Your task to perform on an android device: toggle translation in the chrome app Image 0: 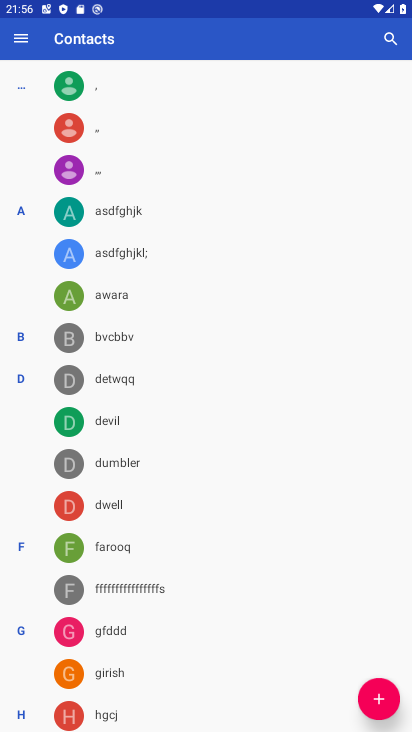
Step 0: press home button
Your task to perform on an android device: toggle translation in the chrome app Image 1: 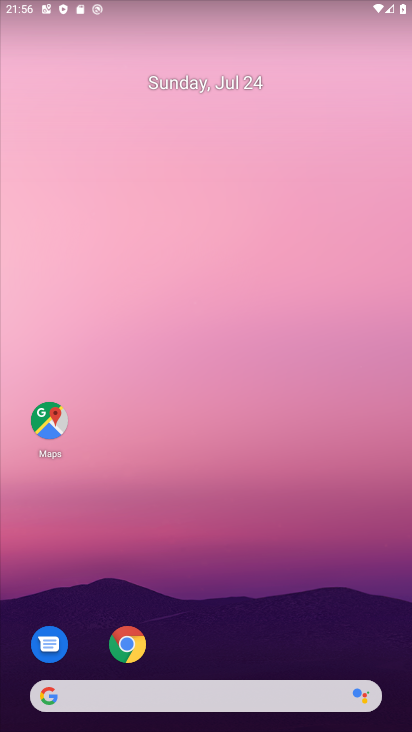
Step 1: click (129, 648)
Your task to perform on an android device: toggle translation in the chrome app Image 2: 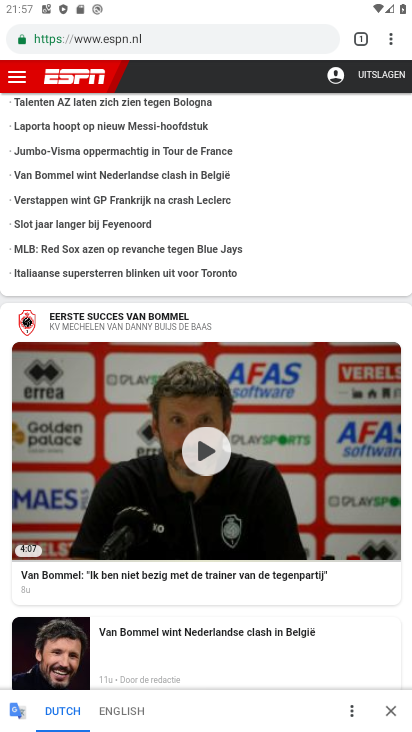
Step 2: click (390, 41)
Your task to perform on an android device: toggle translation in the chrome app Image 3: 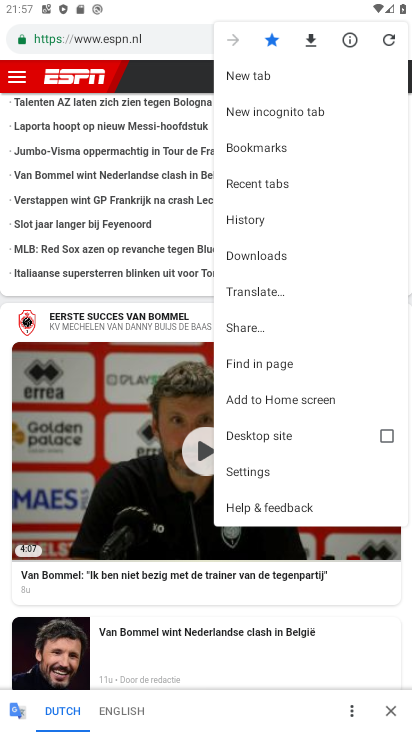
Step 3: click (260, 472)
Your task to perform on an android device: toggle translation in the chrome app Image 4: 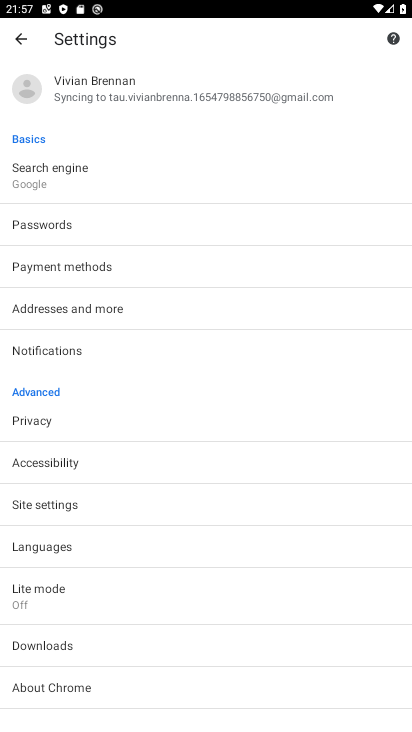
Step 4: click (42, 553)
Your task to perform on an android device: toggle translation in the chrome app Image 5: 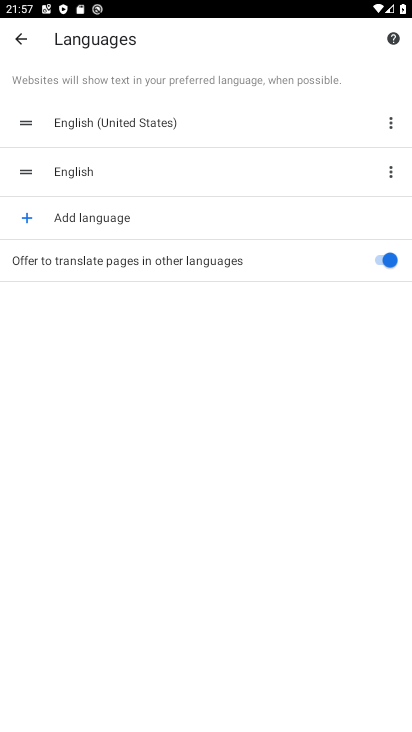
Step 5: click (375, 259)
Your task to perform on an android device: toggle translation in the chrome app Image 6: 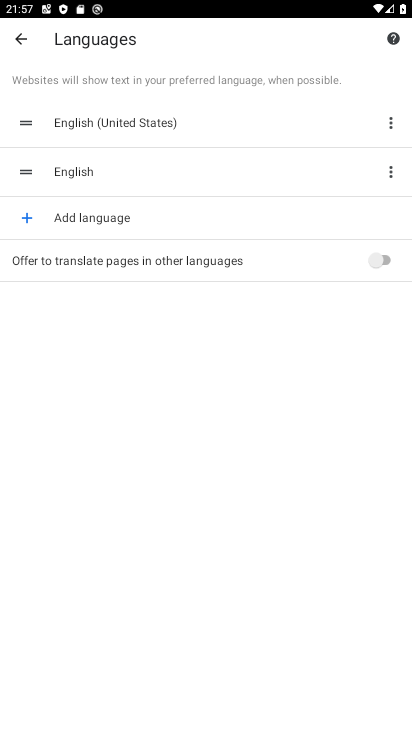
Step 6: task complete